Your task to perform on an android device: turn off picture-in-picture Image 0: 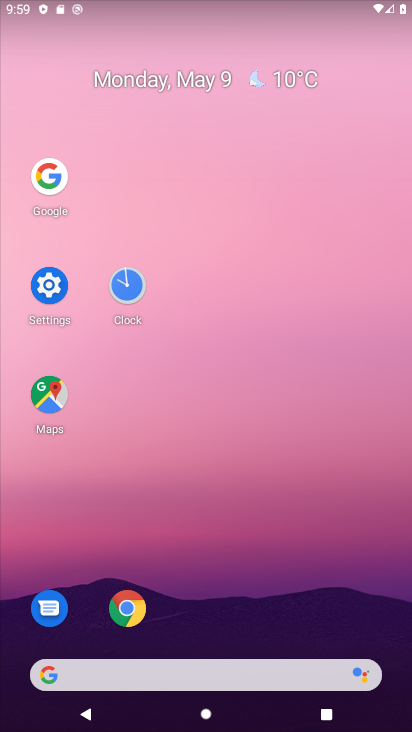
Step 0: click (127, 602)
Your task to perform on an android device: turn off picture-in-picture Image 1: 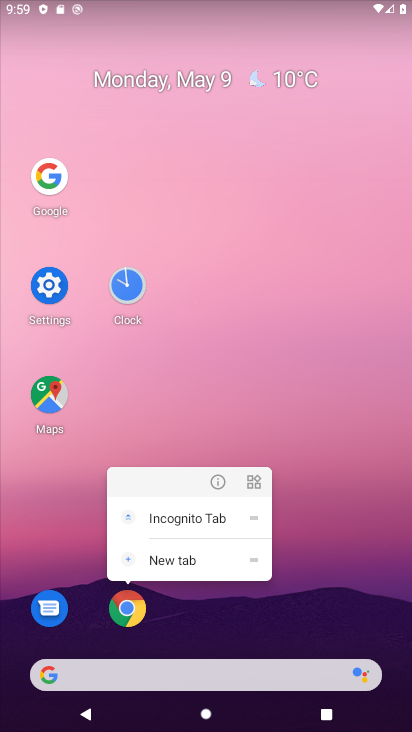
Step 1: click (223, 482)
Your task to perform on an android device: turn off picture-in-picture Image 2: 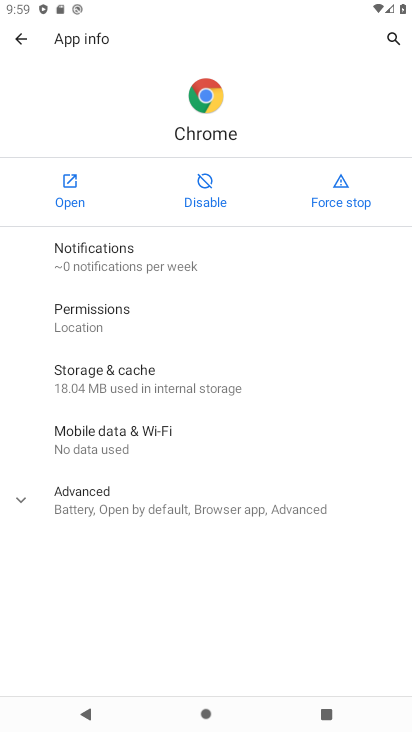
Step 2: click (189, 515)
Your task to perform on an android device: turn off picture-in-picture Image 3: 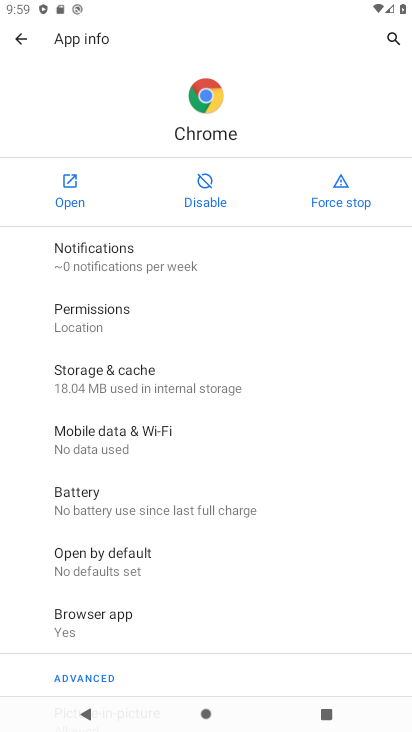
Step 3: drag from (189, 577) to (276, 317)
Your task to perform on an android device: turn off picture-in-picture Image 4: 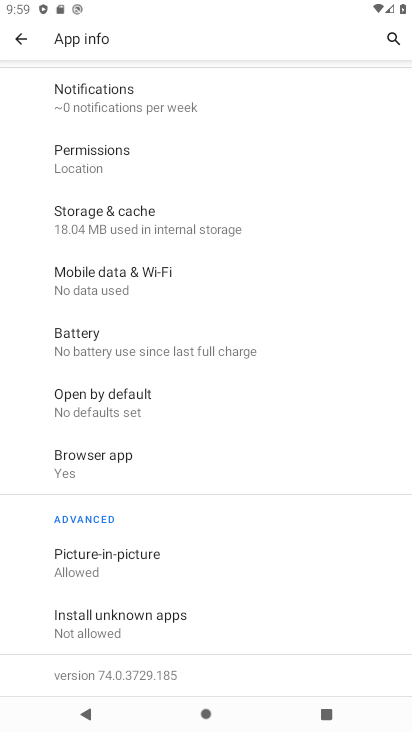
Step 4: click (125, 556)
Your task to perform on an android device: turn off picture-in-picture Image 5: 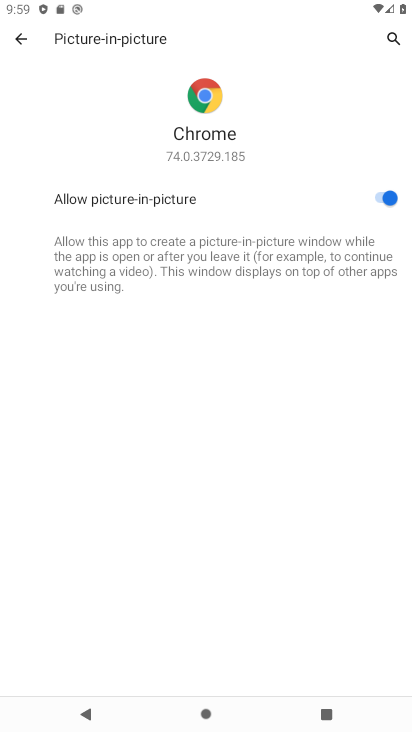
Step 5: click (391, 201)
Your task to perform on an android device: turn off picture-in-picture Image 6: 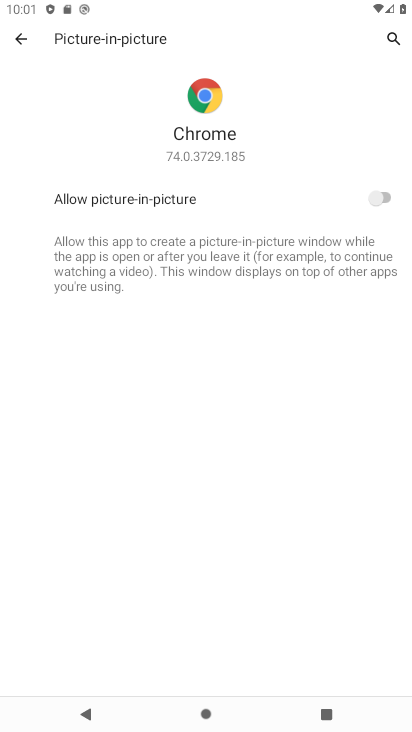
Step 6: task complete